Your task to perform on an android device: turn on improve location accuracy Image 0: 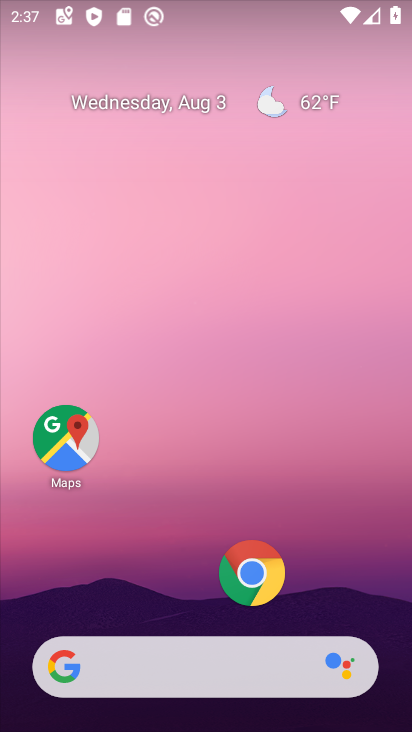
Step 0: drag from (166, 597) to (147, 10)
Your task to perform on an android device: turn on improve location accuracy Image 1: 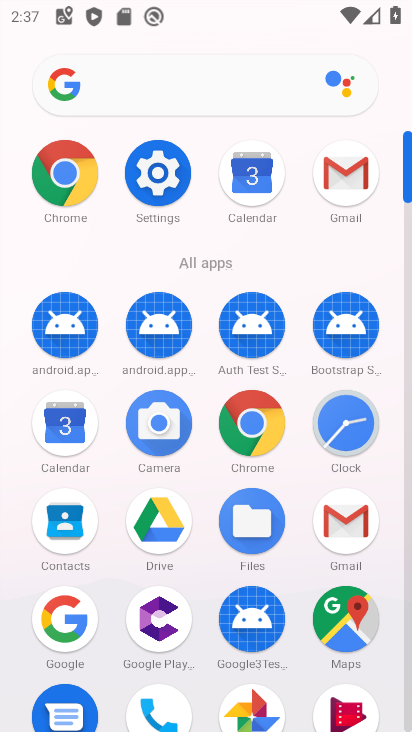
Step 1: click (160, 197)
Your task to perform on an android device: turn on improve location accuracy Image 2: 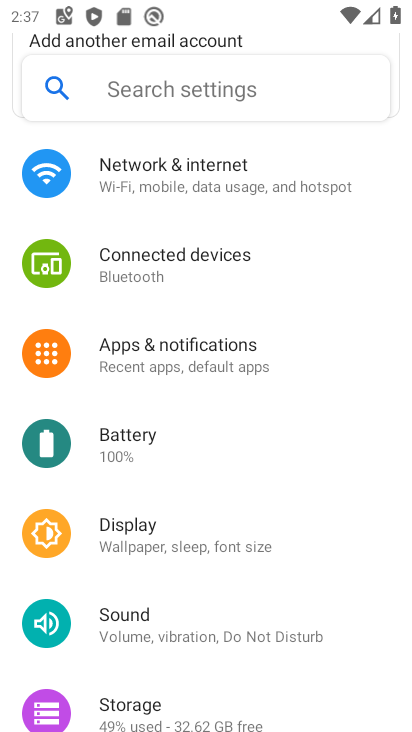
Step 2: drag from (181, 594) to (186, 276)
Your task to perform on an android device: turn on improve location accuracy Image 3: 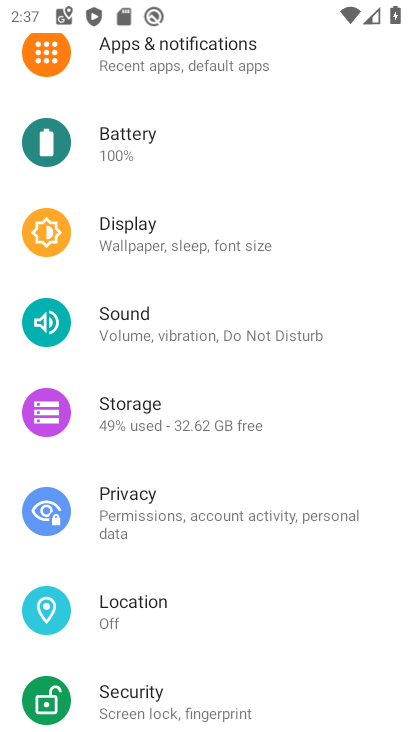
Step 3: click (152, 617)
Your task to perform on an android device: turn on improve location accuracy Image 4: 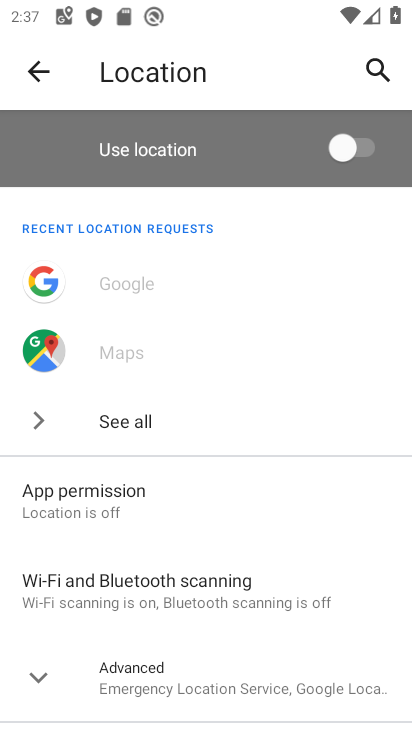
Step 4: drag from (191, 542) to (190, 265)
Your task to perform on an android device: turn on improve location accuracy Image 5: 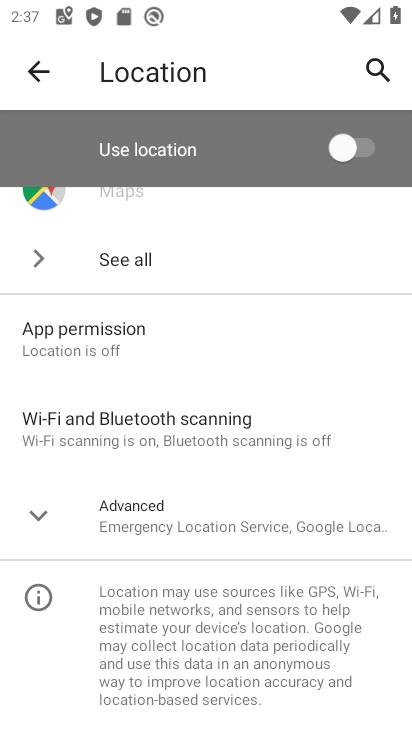
Step 5: click (33, 513)
Your task to perform on an android device: turn on improve location accuracy Image 6: 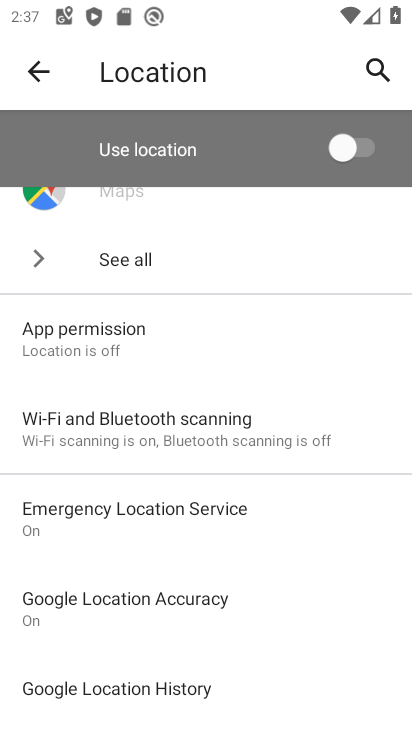
Step 6: drag from (179, 631) to (171, 474)
Your task to perform on an android device: turn on improve location accuracy Image 7: 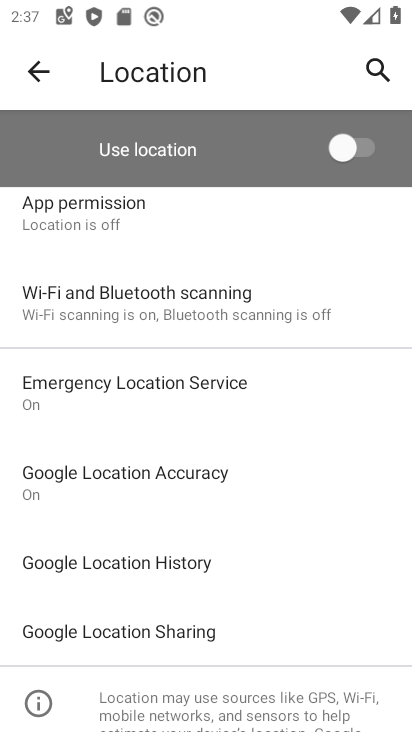
Step 7: click (94, 479)
Your task to perform on an android device: turn on improve location accuracy Image 8: 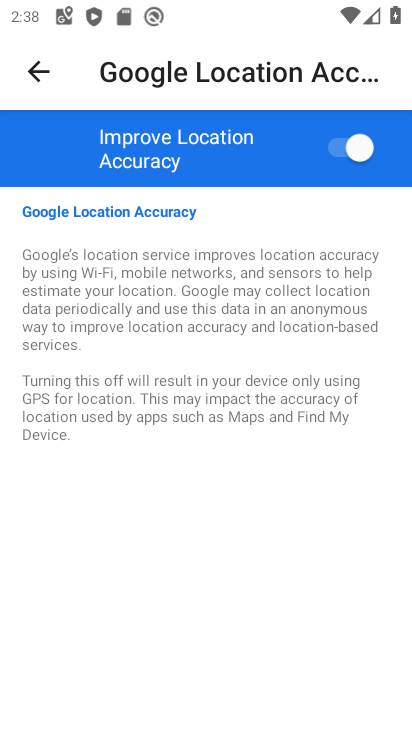
Step 8: task complete